Your task to perform on an android device: Open the calendar app, open the side menu, and click the "Day" option Image 0: 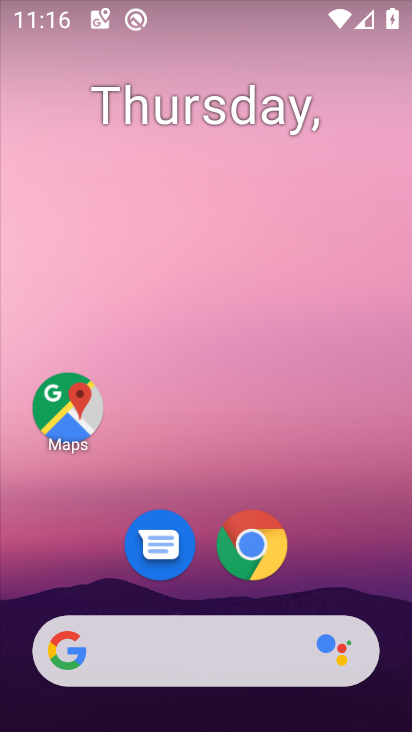
Step 0: drag from (301, 565) to (257, 44)
Your task to perform on an android device: Open the calendar app, open the side menu, and click the "Day" option Image 1: 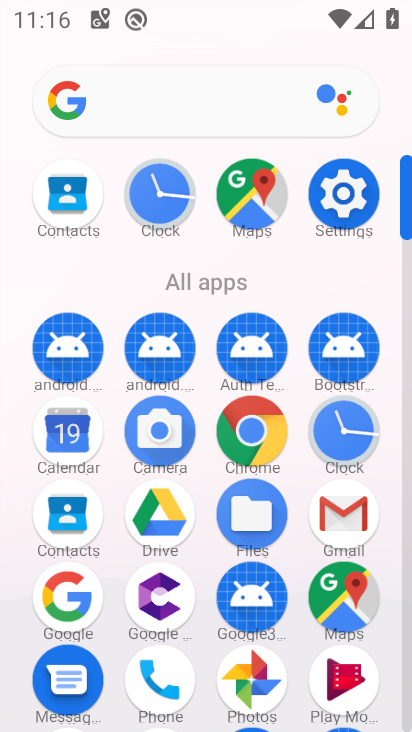
Step 1: click (73, 455)
Your task to perform on an android device: Open the calendar app, open the side menu, and click the "Day" option Image 2: 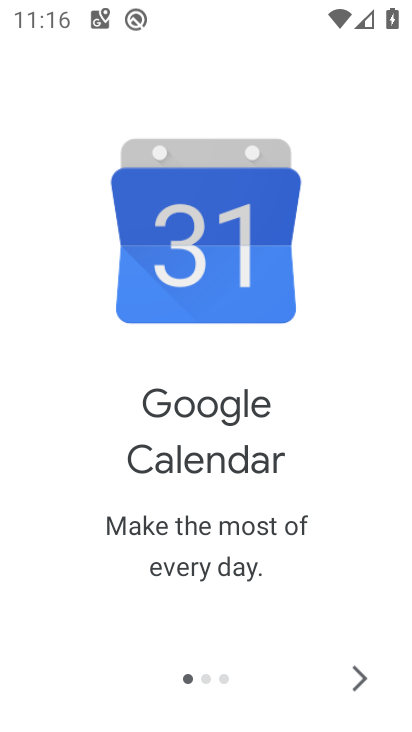
Step 2: click (347, 680)
Your task to perform on an android device: Open the calendar app, open the side menu, and click the "Day" option Image 3: 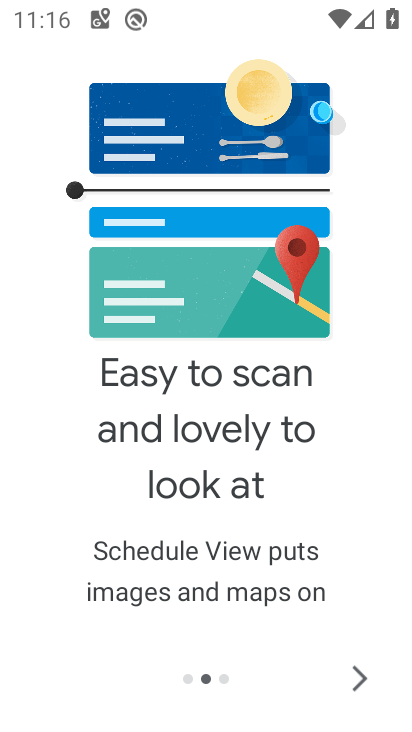
Step 3: click (360, 686)
Your task to perform on an android device: Open the calendar app, open the side menu, and click the "Day" option Image 4: 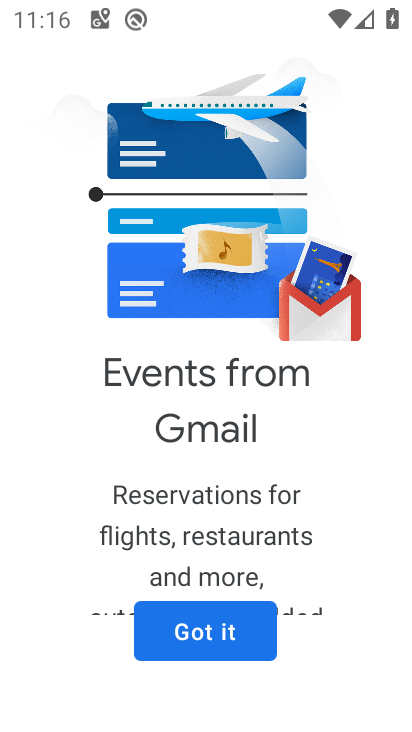
Step 4: click (232, 646)
Your task to perform on an android device: Open the calendar app, open the side menu, and click the "Day" option Image 5: 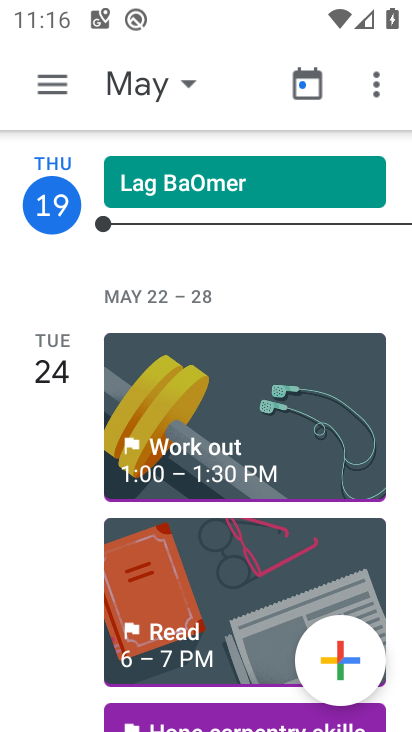
Step 5: click (48, 88)
Your task to perform on an android device: Open the calendar app, open the side menu, and click the "Day" option Image 6: 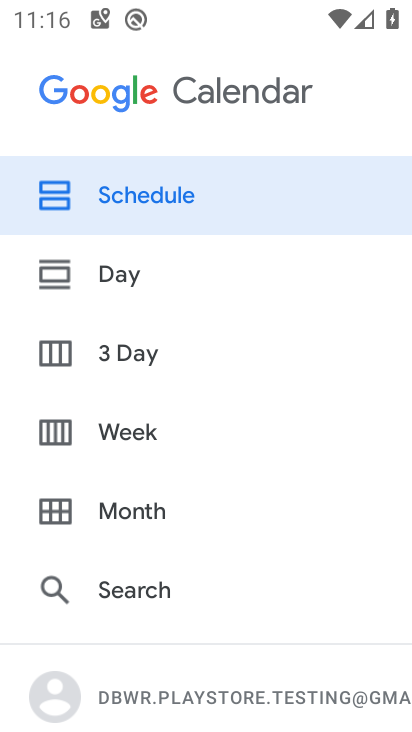
Step 6: click (124, 297)
Your task to perform on an android device: Open the calendar app, open the side menu, and click the "Day" option Image 7: 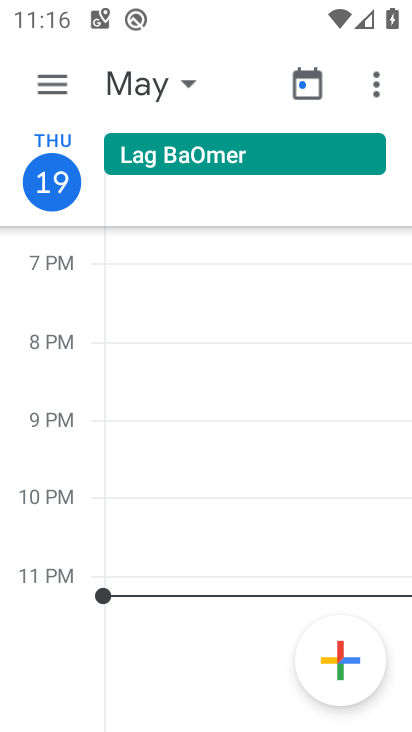
Step 7: task complete